Your task to perform on an android device: see tabs open on other devices in the chrome app Image 0: 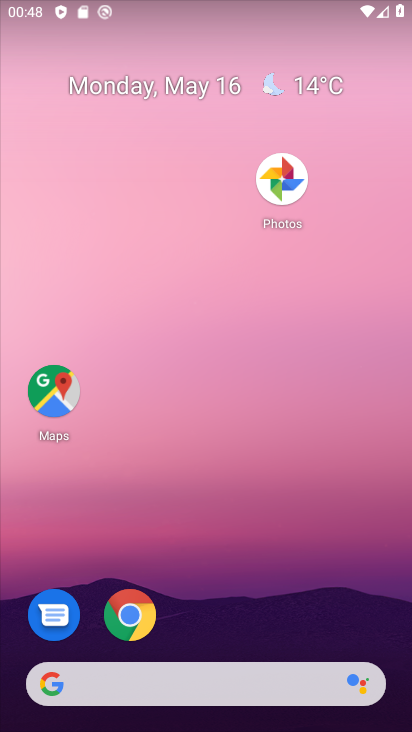
Step 0: drag from (293, 567) to (308, 155)
Your task to perform on an android device: see tabs open on other devices in the chrome app Image 1: 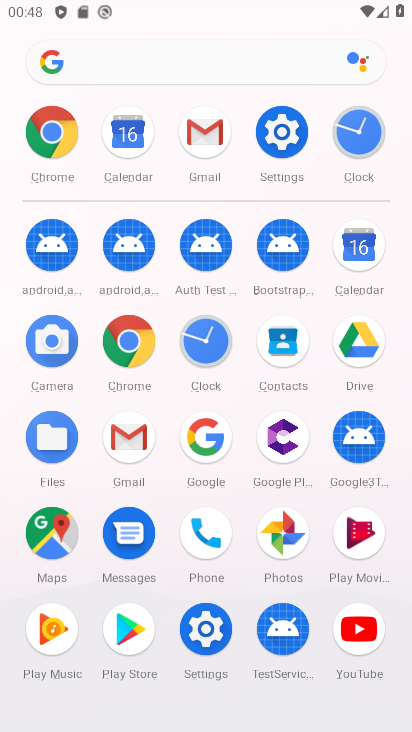
Step 1: click (144, 345)
Your task to perform on an android device: see tabs open on other devices in the chrome app Image 2: 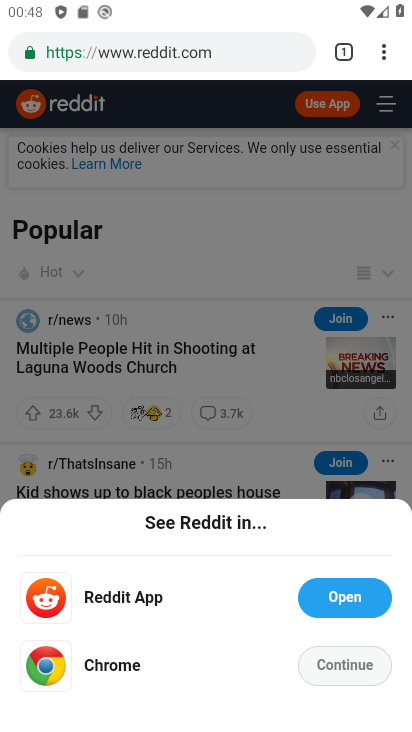
Step 2: click (333, 58)
Your task to perform on an android device: see tabs open on other devices in the chrome app Image 3: 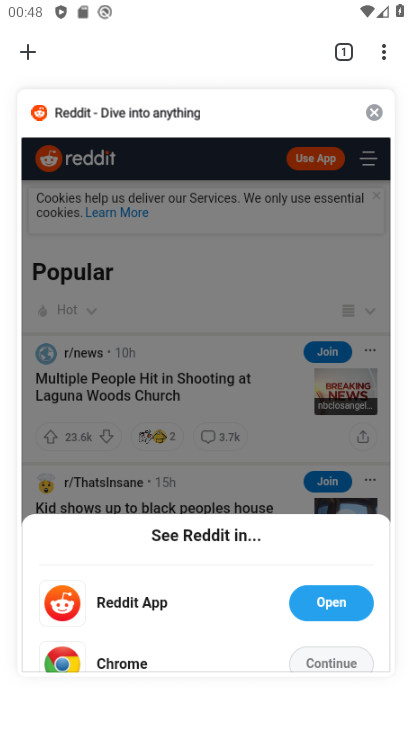
Step 3: click (19, 50)
Your task to perform on an android device: see tabs open on other devices in the chrome app Image 4: 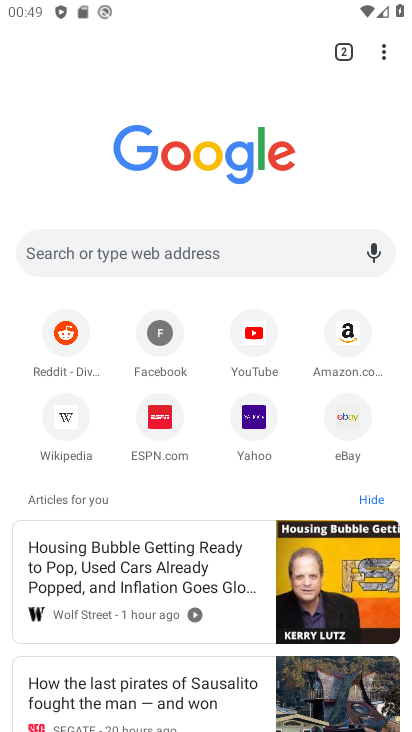
Step 4: task complete